Your task to perform on an android device: make emails show in primary in the gmail app Image 0: 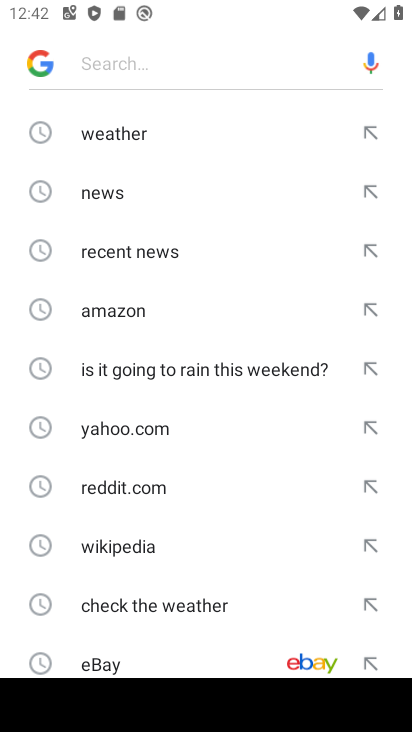
Step 0: press back button
Your task to perform on an android device: make emails show in primary in the gmail app Image 1: 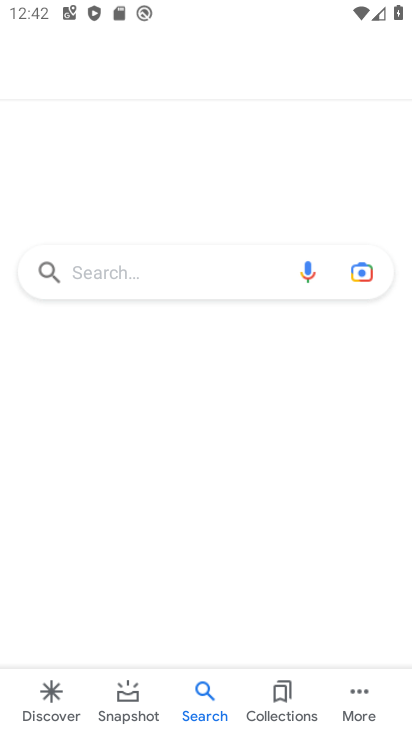
Step 1: press home button
Your task to perform on an android device: make emails show in primary in the gmail app Image 2: 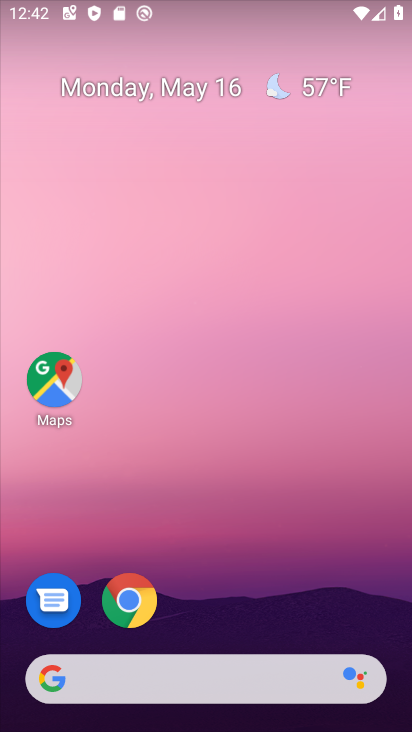
Step 2: drag from (229, 645) to (286, 147)
Your task to perform on an android device: make emails show in primary in the gmail app Image 3: 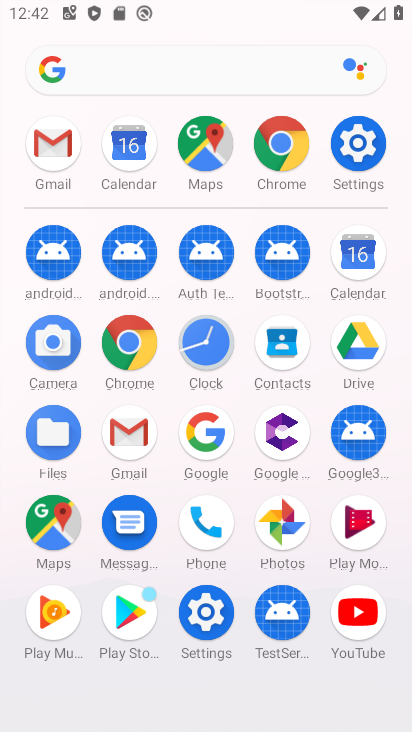
Step 3: click (52, 155)
Your task to perform on an android device: make emails show in primary in the gmail app Image 4: 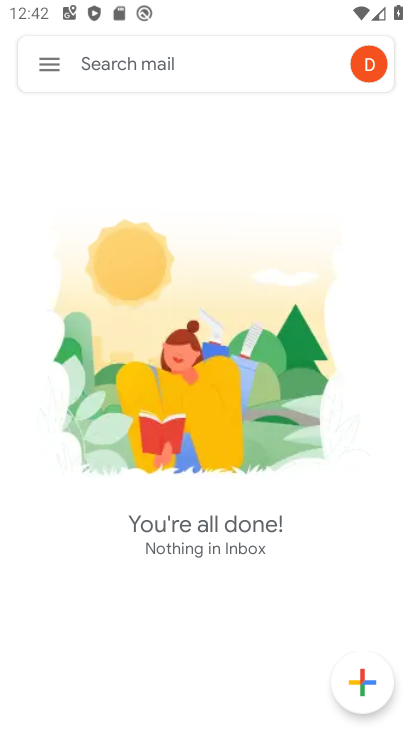
Step 4: click (40, 69)
Your task to perform on an android device: make emails show in primary in the gmail app Image 5: 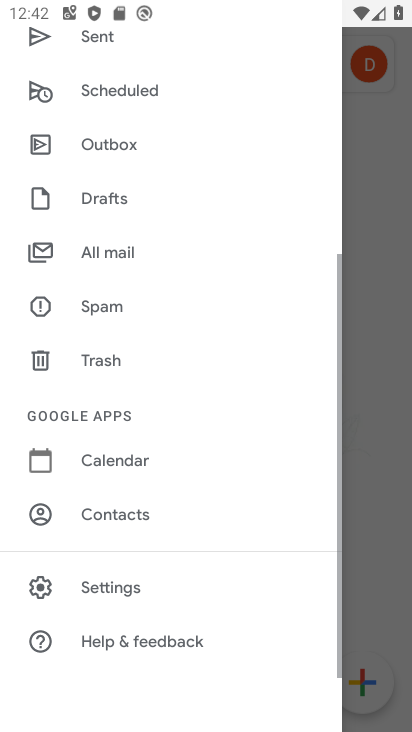
Step 5: click (116, 580)
Your task to perform on an android device: make emails show in primary in the gmail app Image 6: 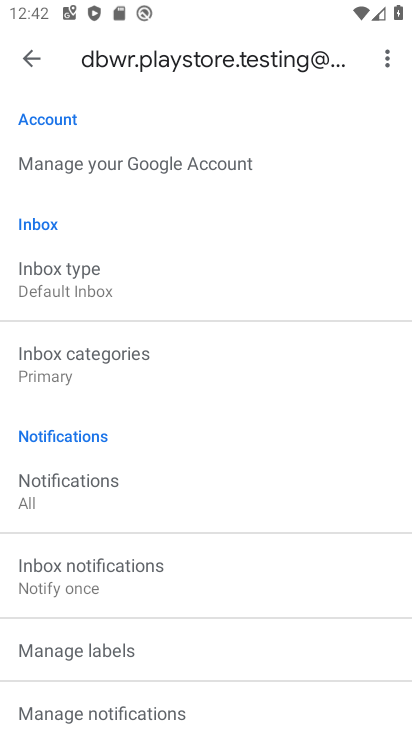
Step 6: click (68, 285)
Your task to perform on an android device: make emails show in primary in the gmail app Image 7: 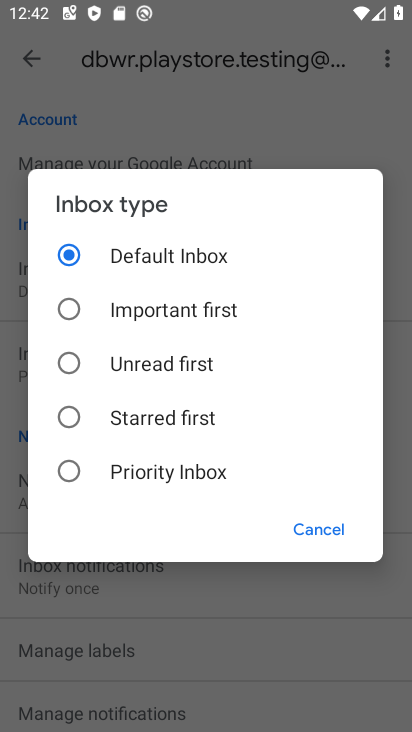
Step 7: click (215, 598)
Your task to perform on an android device: make emails show in primary in the gmail app Image 8: 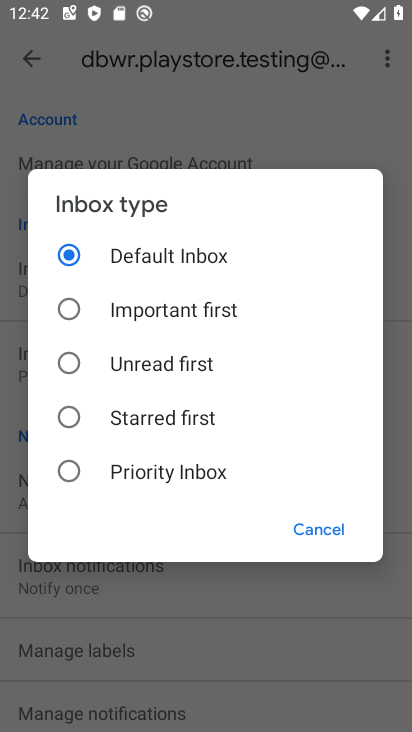
Step 8: click (319, 535)
Your task to perform on an android device: make emails show in primary in the gmail app Image 9: 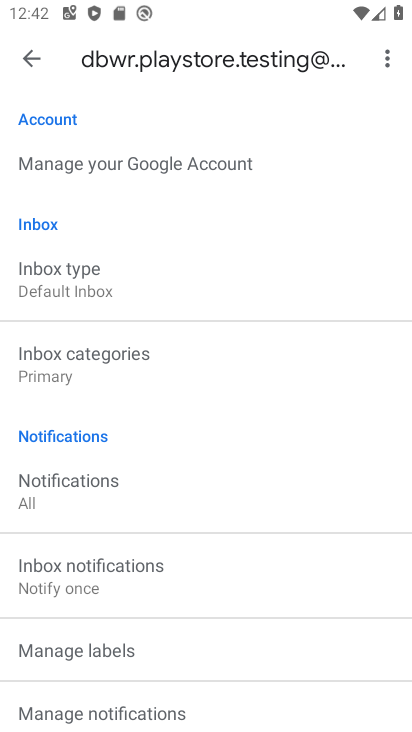
Step 9: click (76, 369)
Your task to perform on an android device: make emails show in primary in the gmail app Image 10: 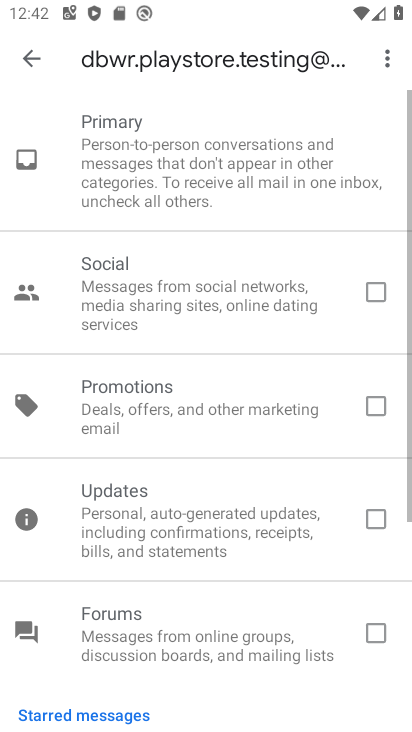
Step 10: drag from (196, 637) to (250, 144)
Your task to perform on an android device: make emails show in primary in the gmail app Image 11: 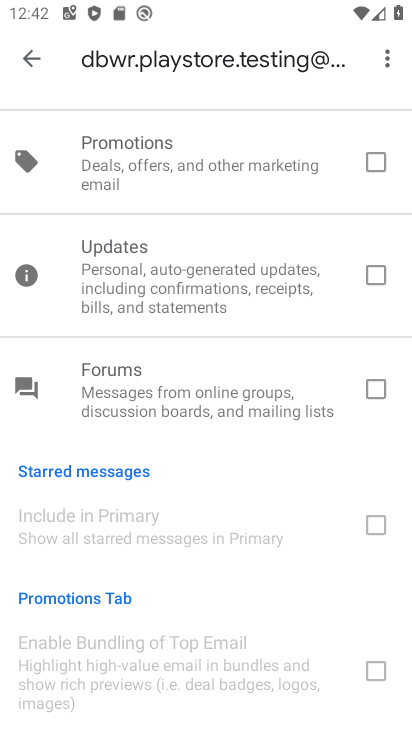
Step 11: drag from (265, 201) to (178, 730)
Your task to perform on an android device: make emails show in primary in the gmail app Image 12: 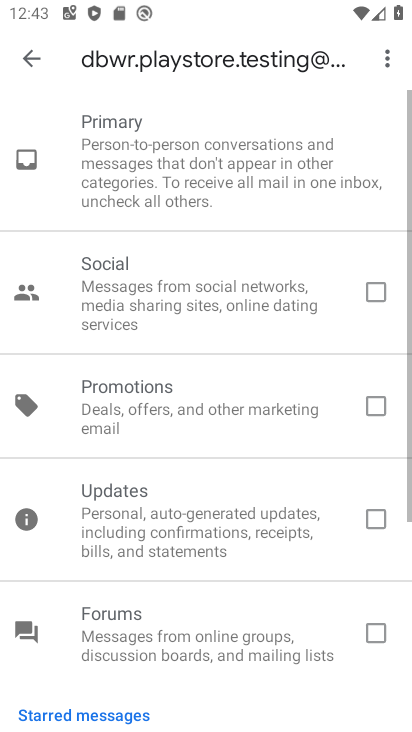
Step 12: click (370, 282)
Your task to perform on an android device: make emails show in primary in the gmail app Image 13: 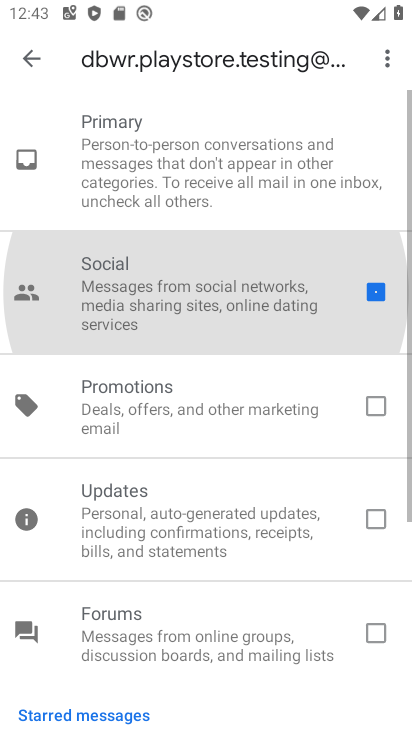
Step 13: click (381, 411)
Your task to perform on an android device: make emails show in primary in the gmail app Image 14: 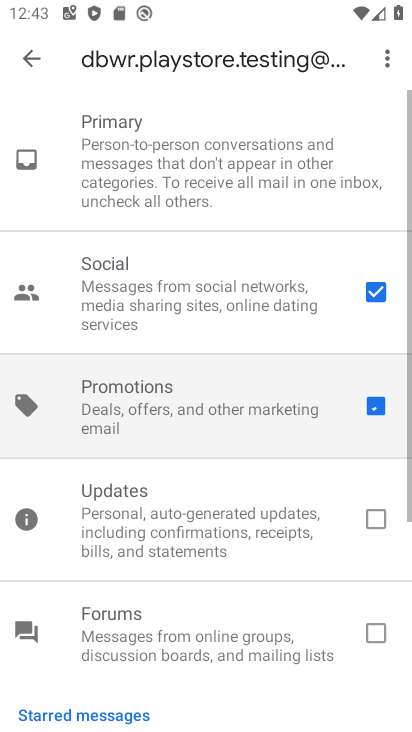
Step 14: click (371, 478)
Your task to perform on an android device: make emails show in primary in the gmail app Image 15: 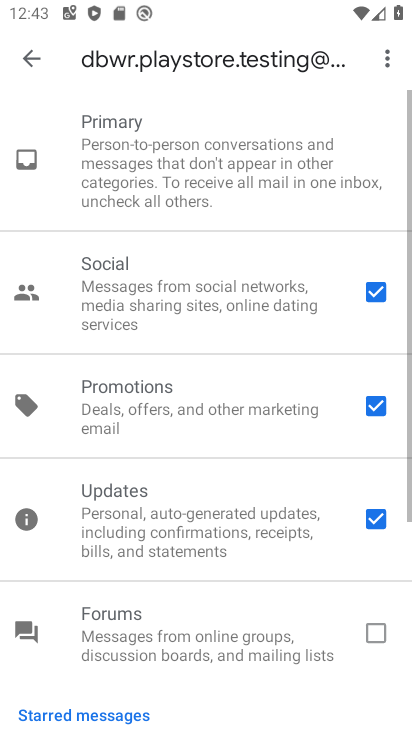
Step 15: drag from (369, 641) to (282, 174)
Your task to perform on an android device: make emails show in primary in the gmail app Image 16: 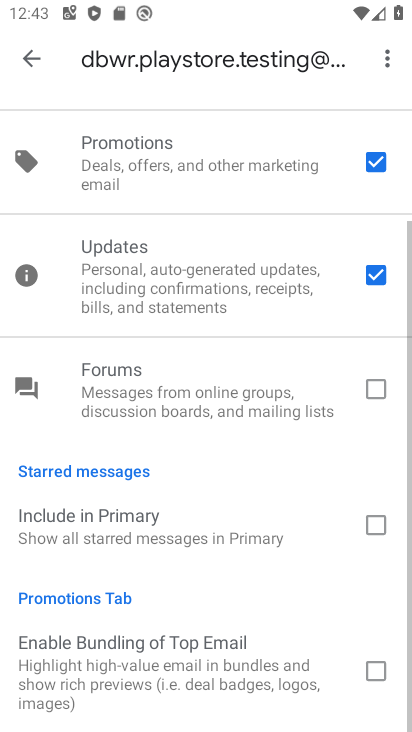
Step 16: click (366, 524)
Your task to perform on an android device: make emails show in primary in the gmail app Image 17: 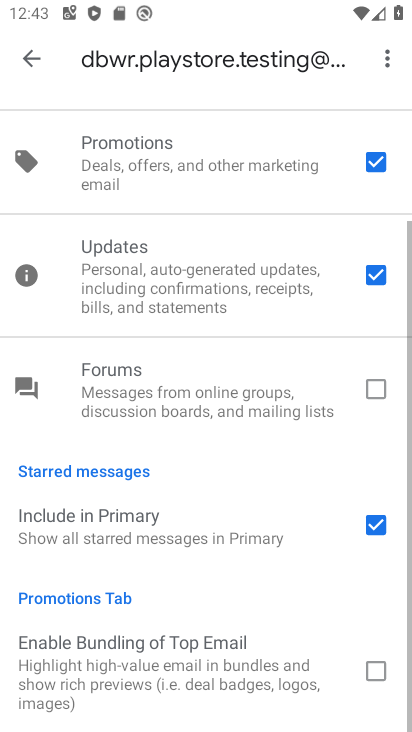
Step 17: click (374, 387)
Your task to perform on an android device: make emails show in primary in the gmail app Image 18: 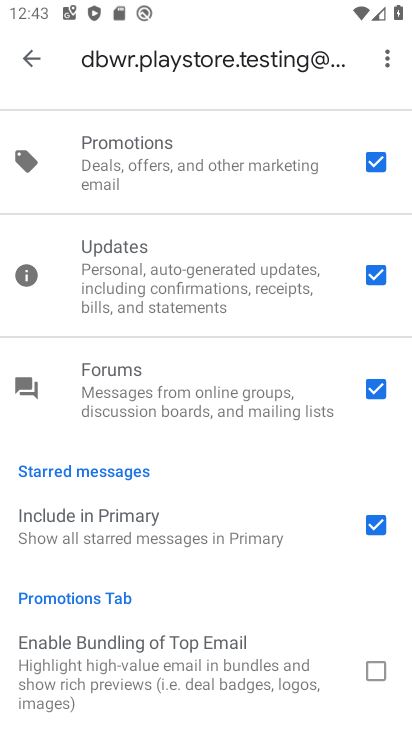
Step 18: task complete